Your task to perform on an android device: Open wifi settings Image 0: 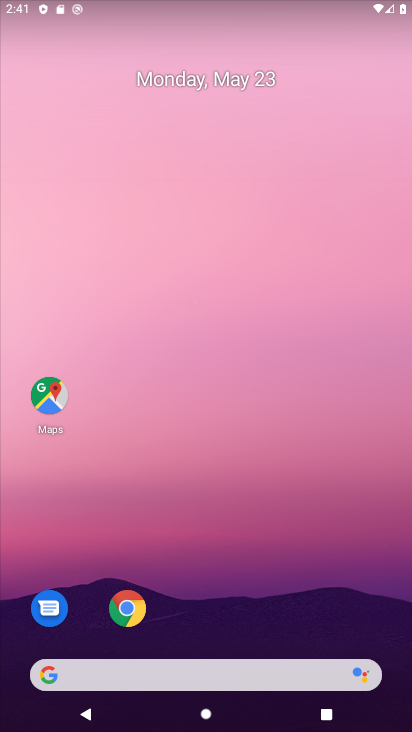
Step 0: drag from (298, 526) to (292, 235)
Your task to perform on an android device: Open wifi settings Image 1: 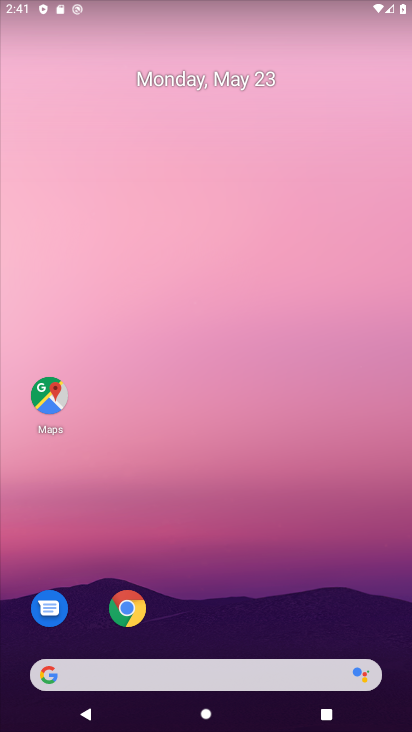
Step 1: drag from (286, 532) to (287, 270)
Your task to perform on an android device: Open wifi settings Image 2: 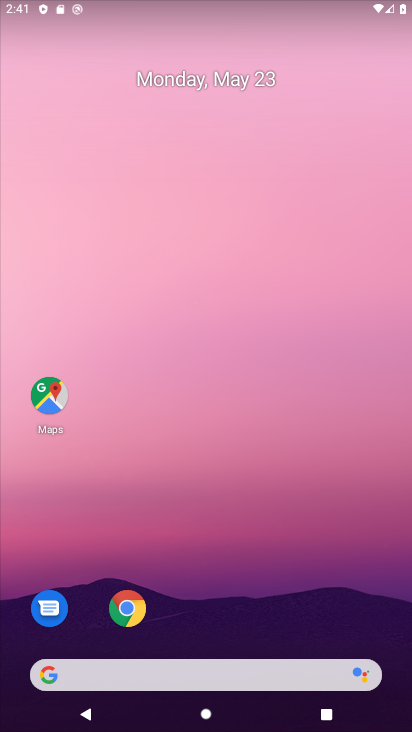
Step 2: drag from (276, 622) to (272, 122)
Your task to perform on an android device: Open wifi settings Image 3: 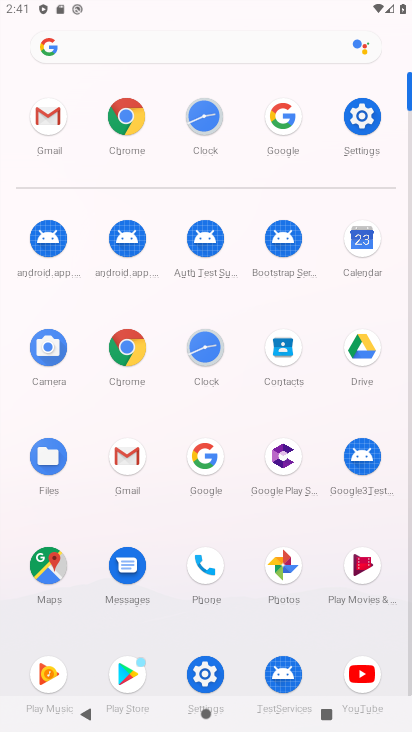
Step 3: click (364, 127)
Your task to perform on an android device: Open wifi settings Image 4: 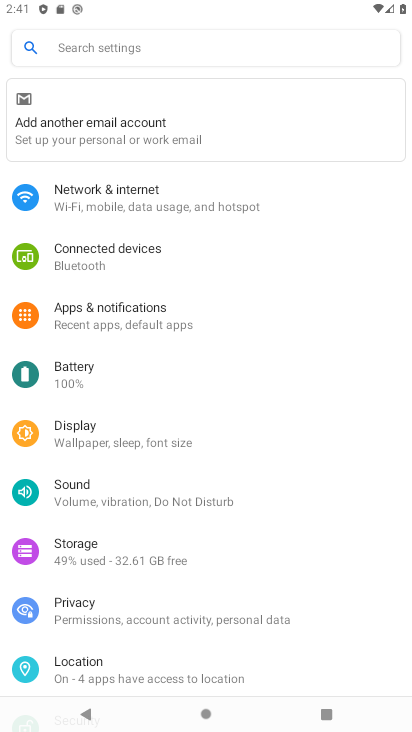
Step 4: click (162, 201)
Your task to perform on an android device: Open wifi settings Image 5: 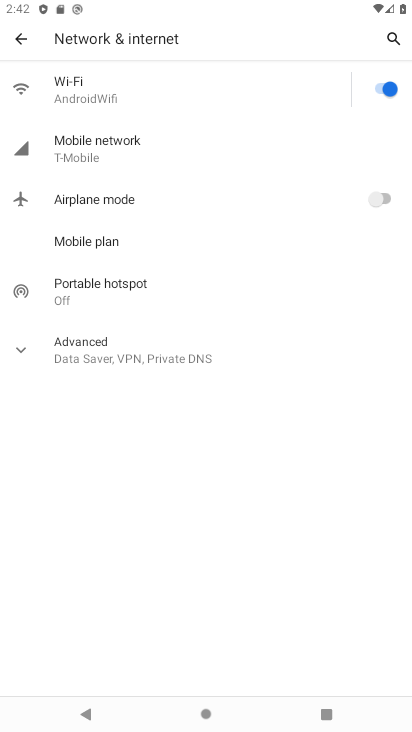
Step 5: click (93, 103)
Your task to perform on an android device: Open wifi settings Image 6: 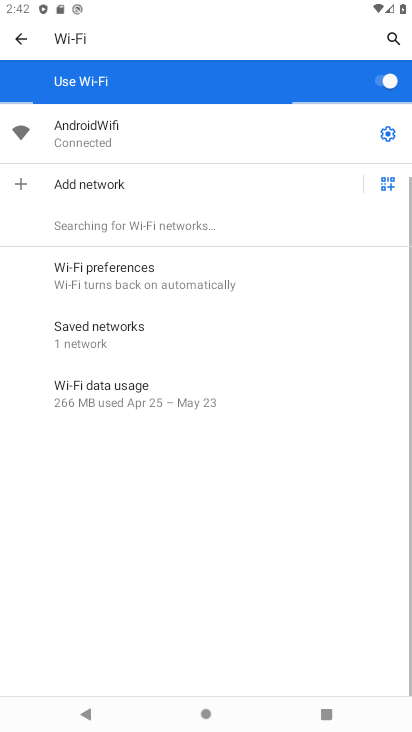
Step 6: task complete